Your task to perform on an android device: What's the weather going to be this weekend? Image 0: 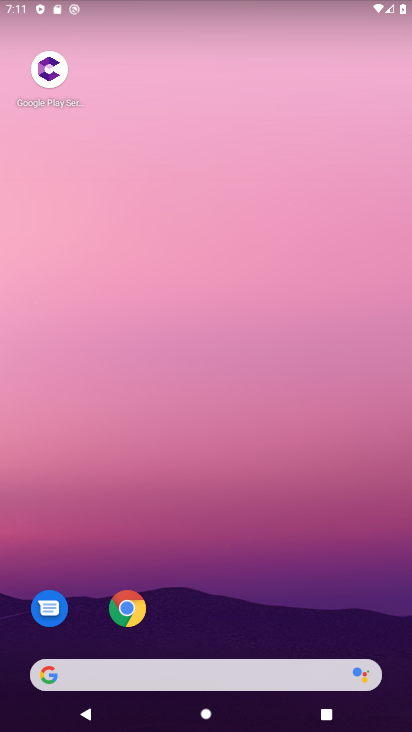
Step 0: drag from (255, 649) to (265, 87)
Your task to perform on an android device: What's the weather going to be this weekend? Image 1: 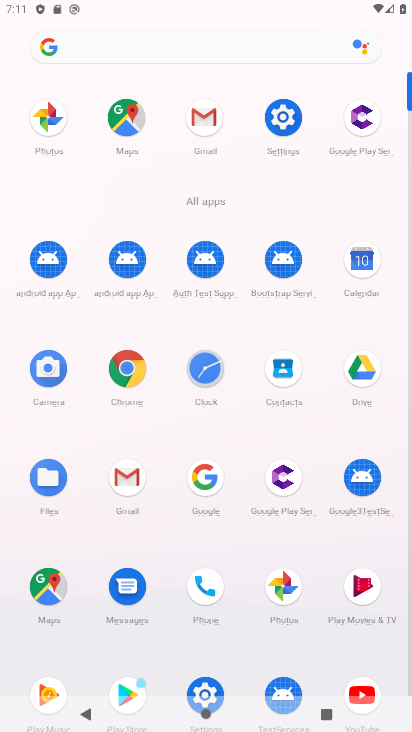
Step 1: click (194, 499)
Your task to perform on an android device: What's the weather going to be this weekend? Image 2: 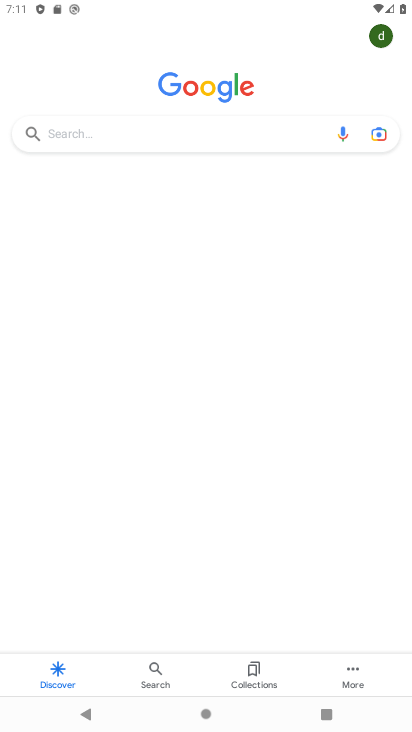
Step 2: click (153, 149)
Your task to perform on an android device: What's the weather going to be this weekend? Image 3: 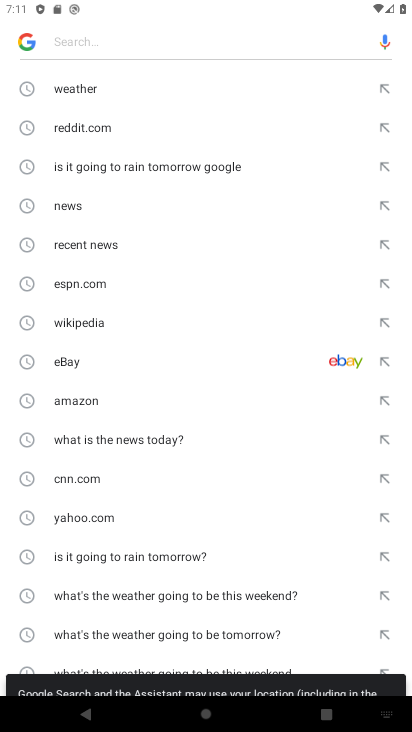
Step 3: click (70, 88)
Your task to perform on an android device: What's the weather going to be this weekend? Image 4: 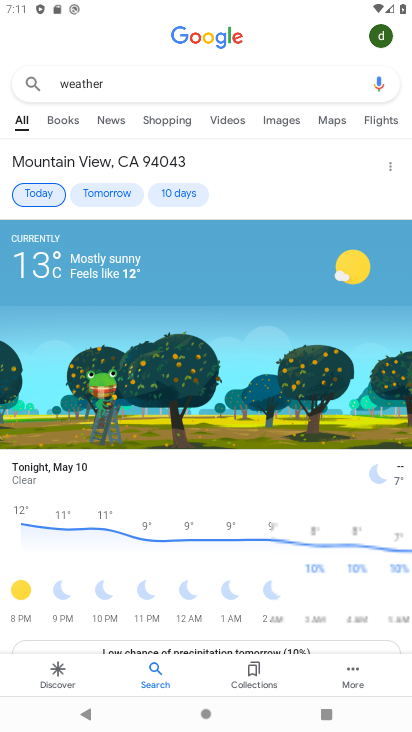
Step 4: click (193, 200)
Your task to perform on an android device: What's the weather going to be this weekend? Image 5: 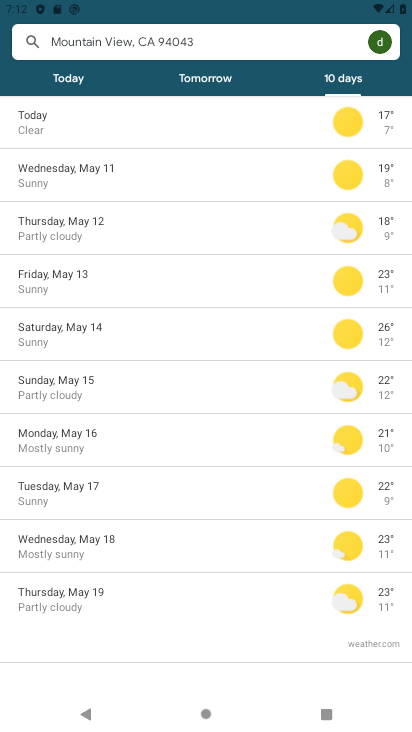
Step 5: task complete